Your task to perform on an android device: search for starred emails in the gmail app Image 0: 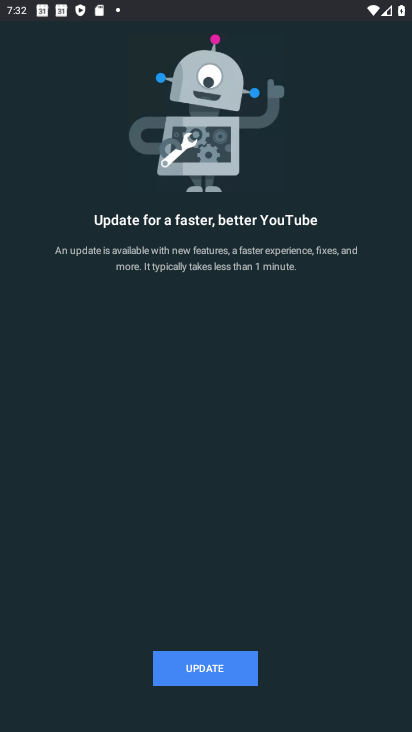
Step 0: press back button
Your task to perform on an android device: search for starred emails in the gmail app Image 1: 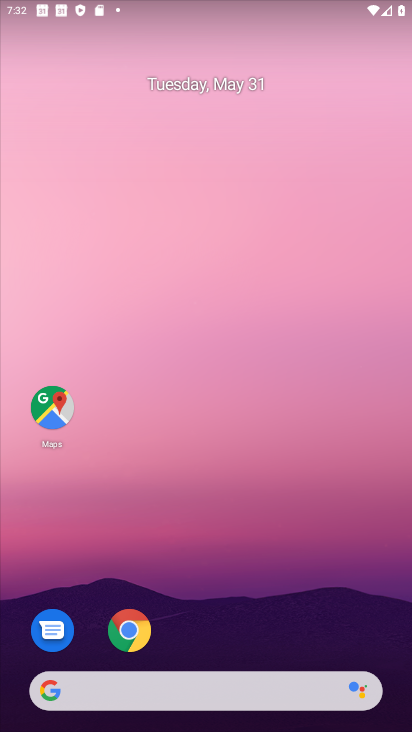
Step 1: drag from (269, 516) to (286, 289)
Your task to perform on an android device: search for starred emails in the gmail app Image 2: 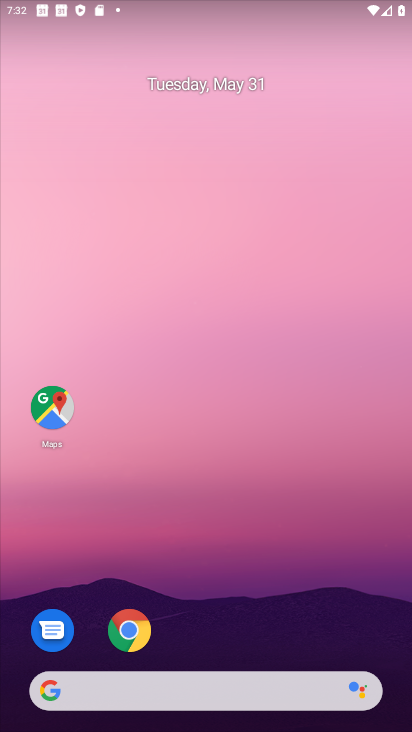
Step 2: drag from (219, 650) to (227, 208)
Your task to perform on an android device: search for starred emails in the gmail app Image 3: 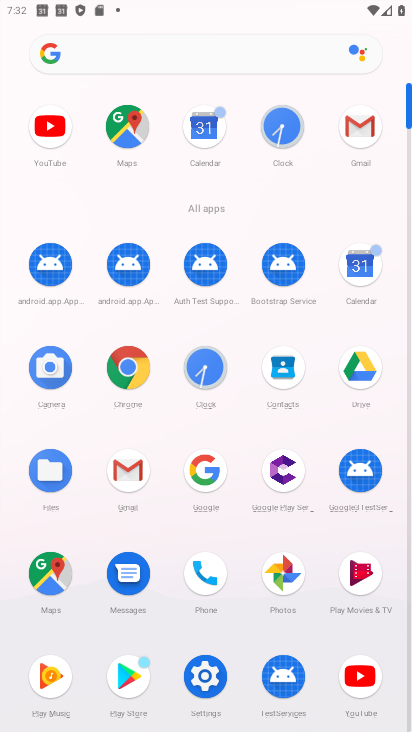
Step 3: click (123, 464)
Your task to perform on an android device: search for starred emails in the gmail app Image 4: 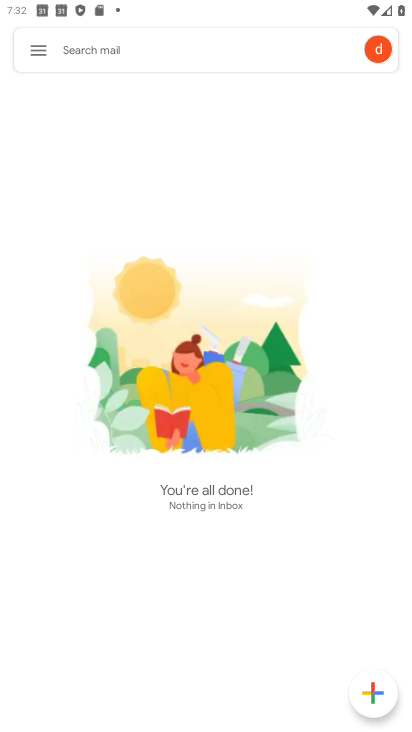
Step 4: click (37, 45)
Your task to perform on an android device: search for starred emails in the gmail app Image 5: 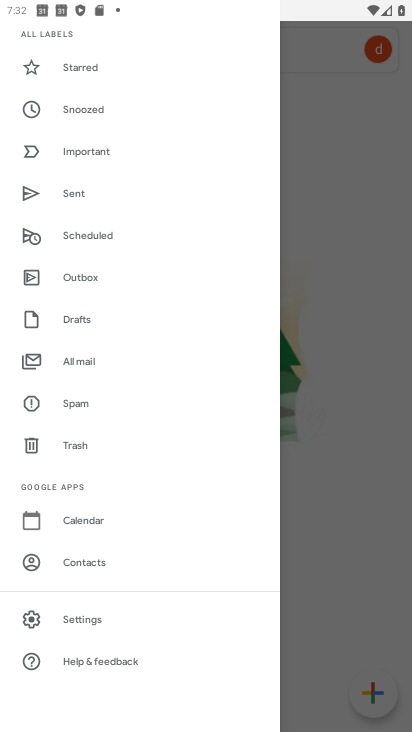
Step 5: click (83, 73)
Your task to perform on an android device: search for starred emails in the gmail app Image 6: 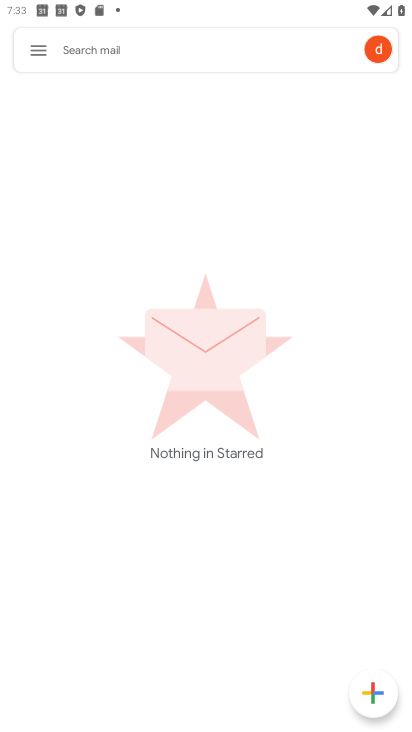
Step 6: task complete